Your task to perform on an android device: Search for usb-b on costco, select the first entry, add it to the cart, then select checkout. Image 0: 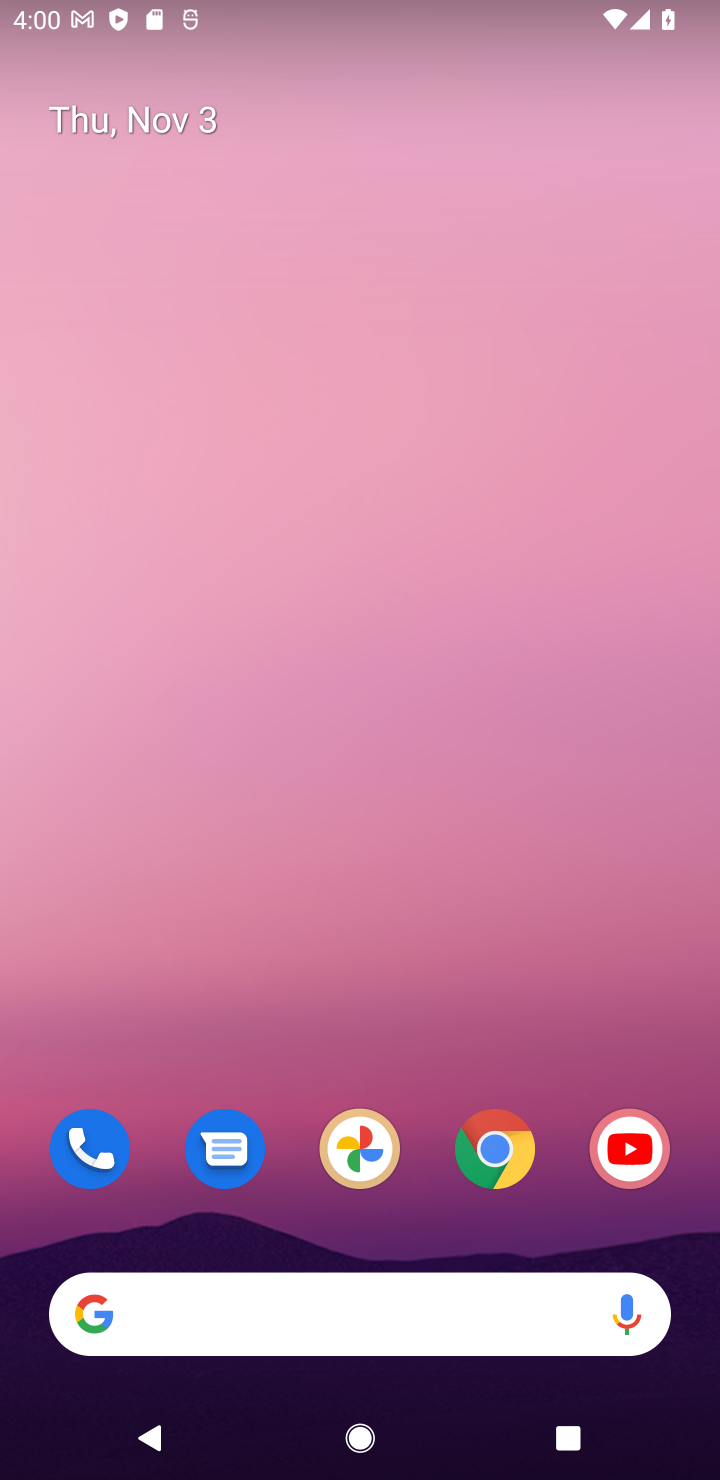
Step 0: press home button
Your task to perform on an android device: Search for usb-b on costco, select the first entry, add it to the cart, then select checkout. Image 1: 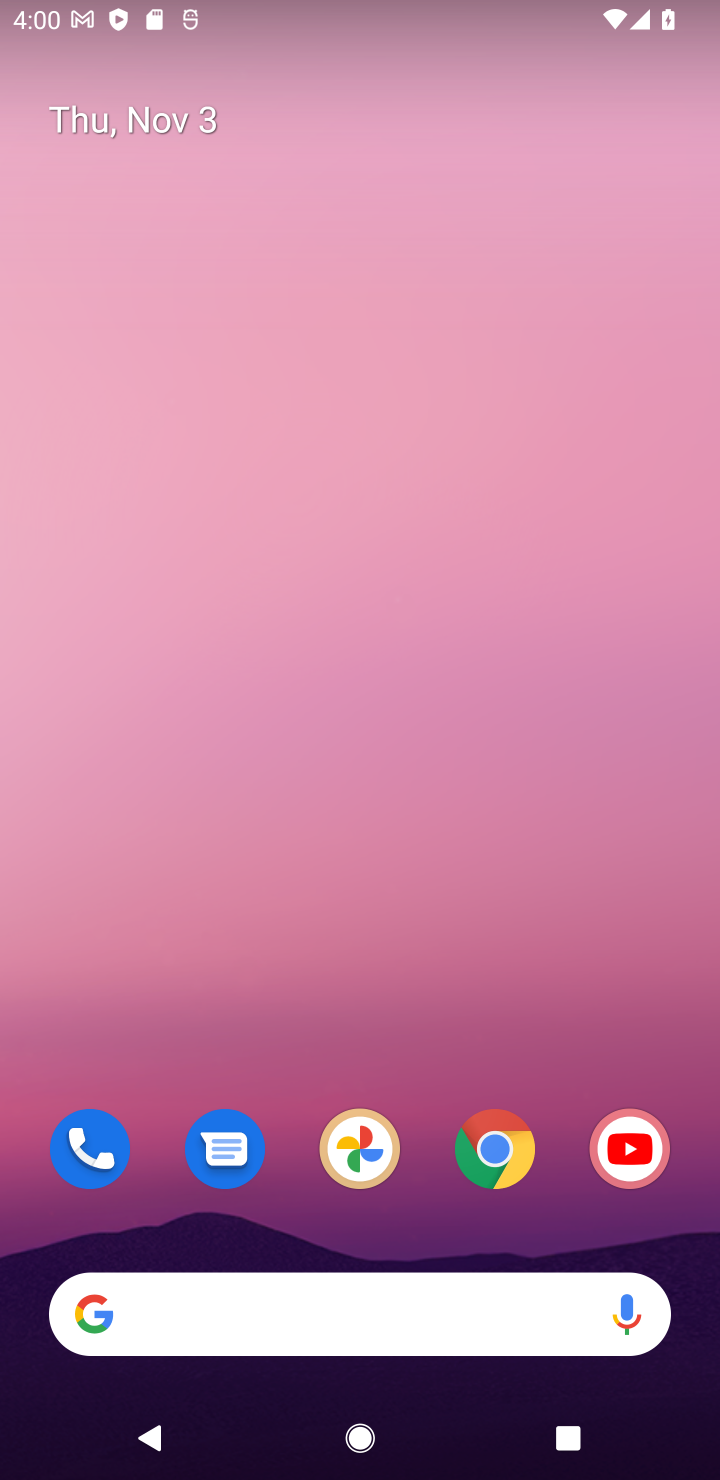
Step 1: click (487, 1149)
Your task to perform on an android device: Search for usb-b on costco, select the first entry, add it to the cart, then select checkout. Image 2: 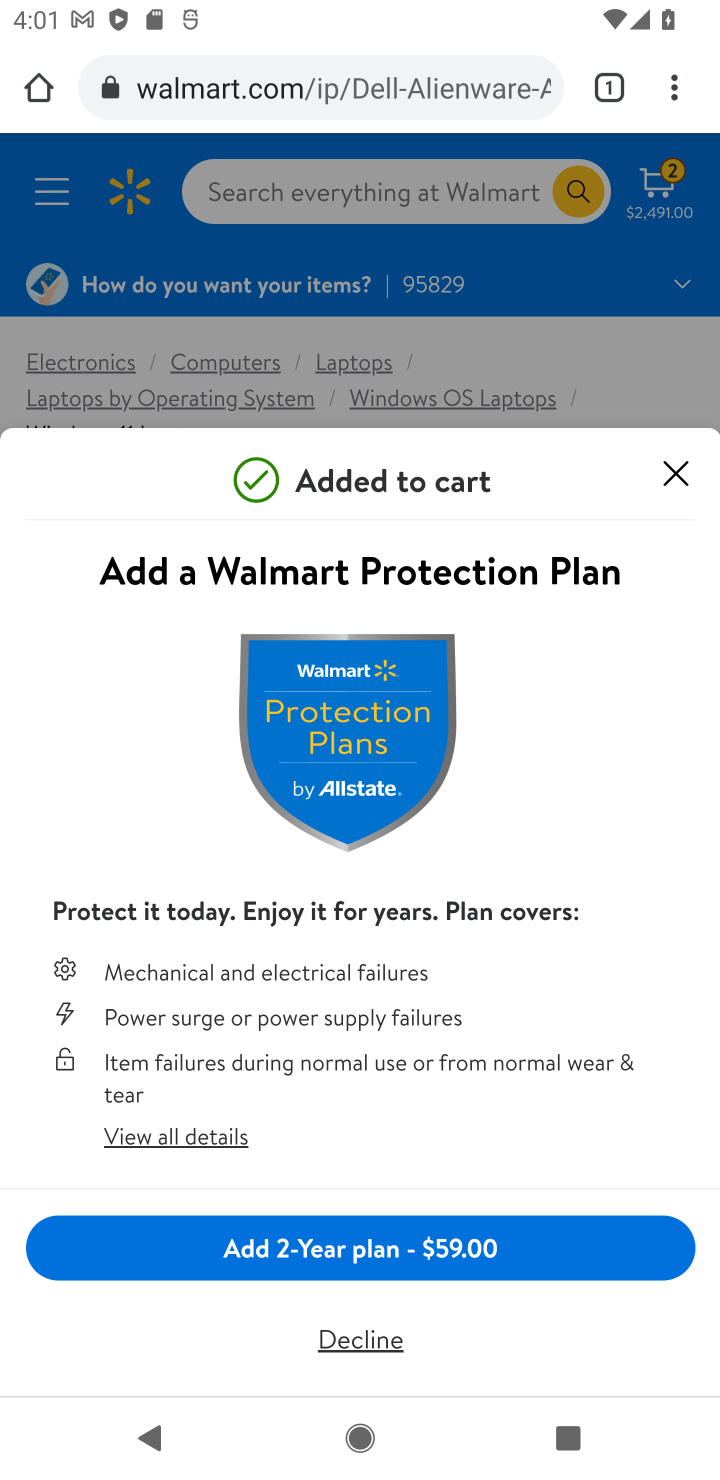
Step 2: click (375, 83)
Your task to perform on an android device: Search for usb-b on costco, select the first entry, add it to the cart, then select checkout. Image 3: 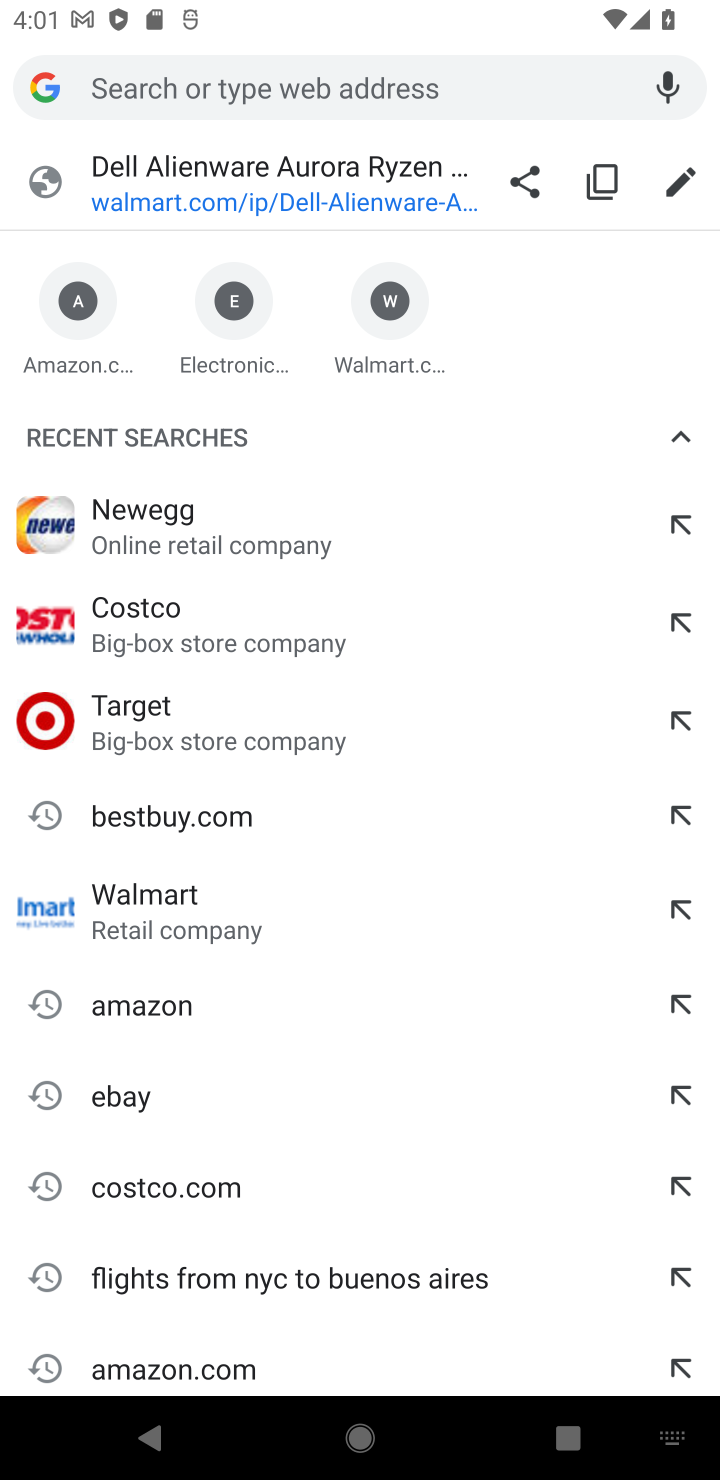
Step 3: type "costco"
Your task to perform on an android device: Search for usb-b on costco, select the first entry, add it to the cart, then select checkout. Image 4: 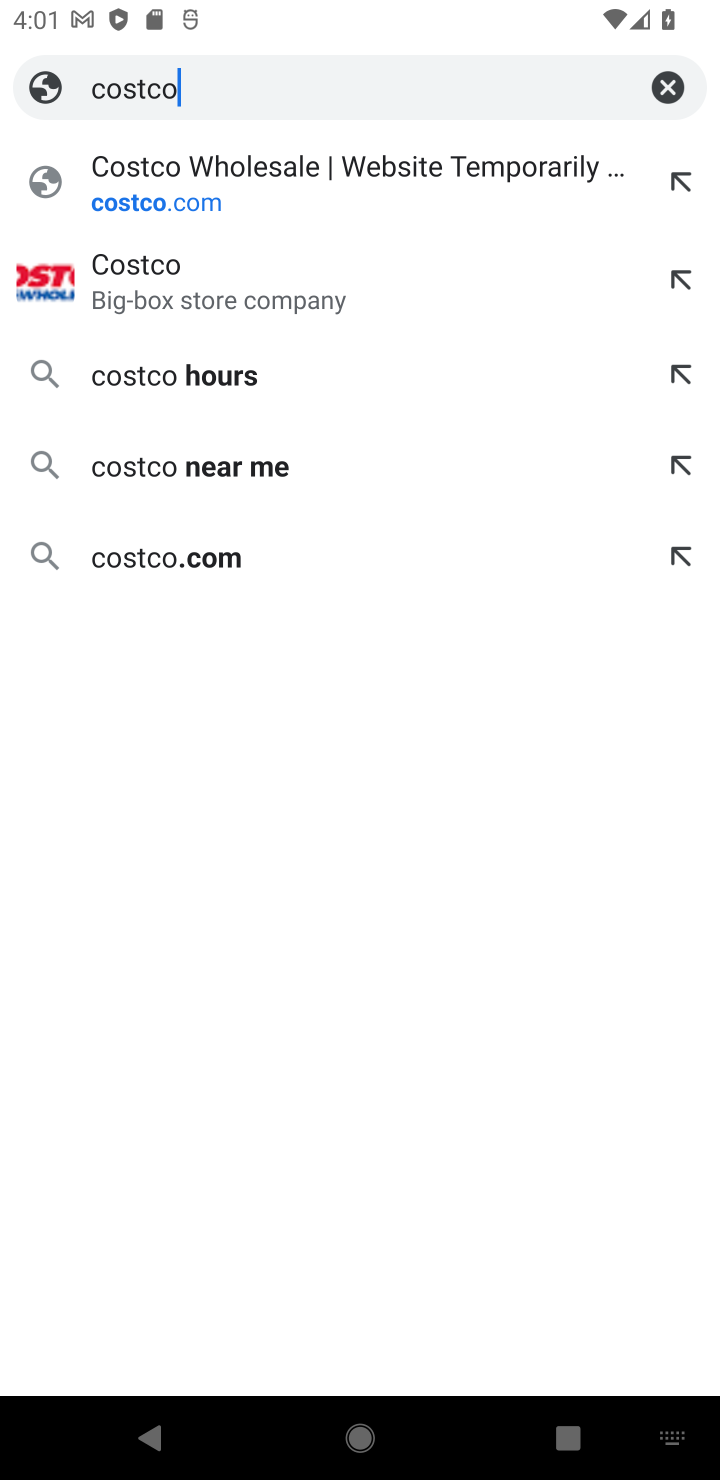
Step 4: click (324, 177)
Your task to perform on an android device: Search for usb-b on costco, select the first entry, add it to the cart, then select checkout. Image 5: 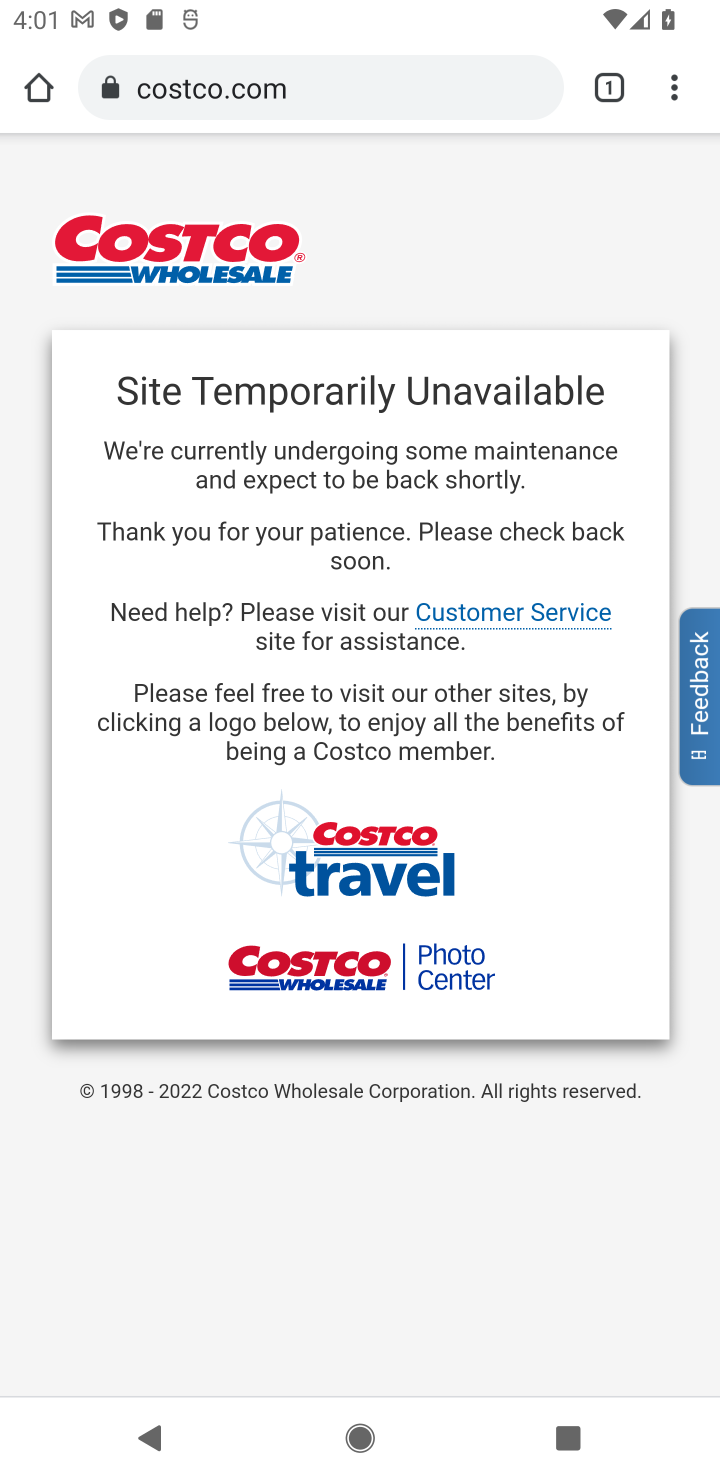
Step 5: task complete